Your task to perform on an android device: Open the phone app and click the voicemail tab. Image 0: 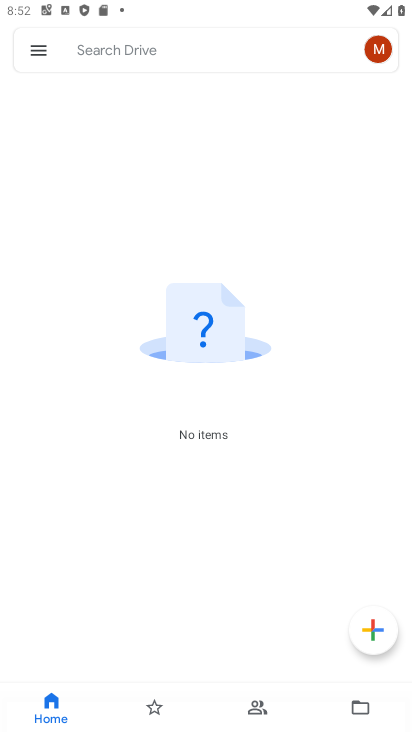
Step 0: press home button
Your task to perform on an android device: Open the phone app and click the voicemail tab. Image 1: 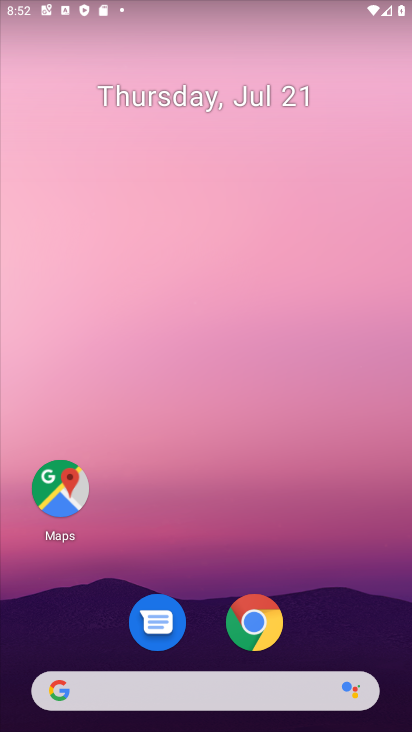
Step 1: drag from (221, 723) to (211, 119)
Your task to perform on an android device: Open the phone app and click the voicemail tab. Image 2: 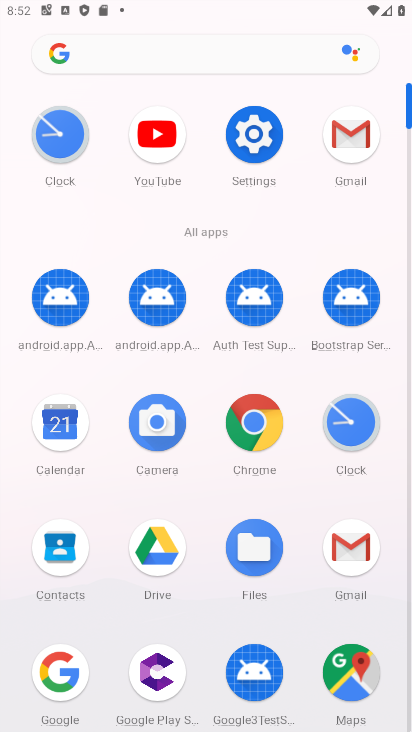
Step 2: drag from (202, 726) to (346, 19)
Your task to perform on an android device: Open the phone app and click the voicemail tab. Image 3: 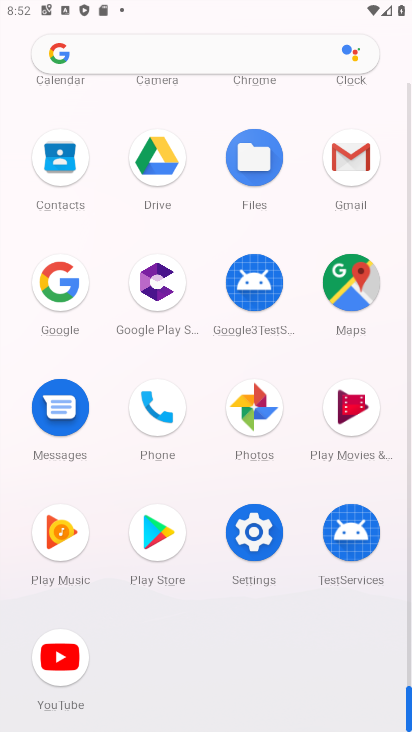
Step 3: click (151, 413)
Your task to perform on an android device: Open the phone app and click the voicemail tab. Image 4: 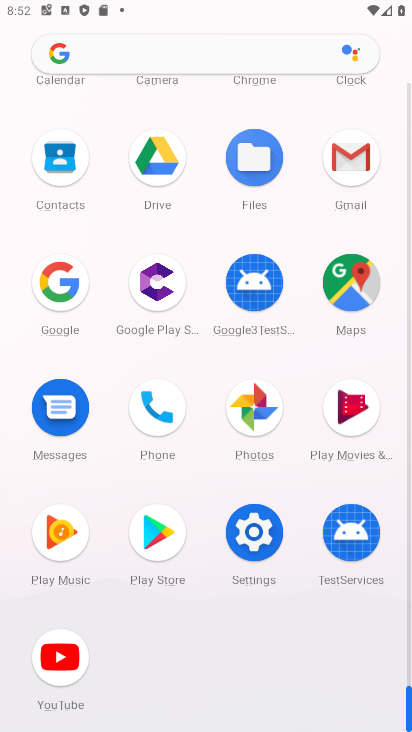
Step 4: click (151, 413)
Your task to perform on an android device: Open the phone app and click the voicemail tab. Image 5: 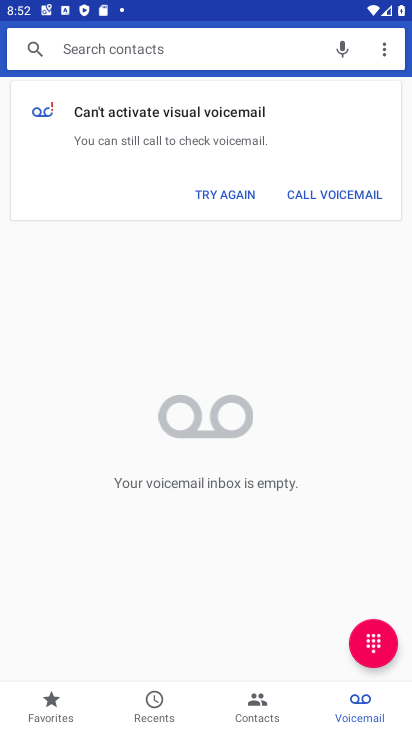
Step 5: click (367, 709)
Your task to perform on an android device: Open the phone app and click the voicemail tab. Image 6: 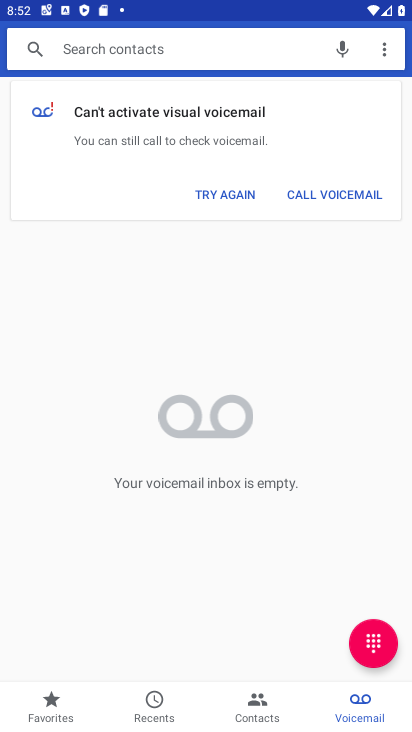
Step 6: click (367, 709)
Your task to perform on an android device: Open the phone app and click the voicemail tab. Image 7: 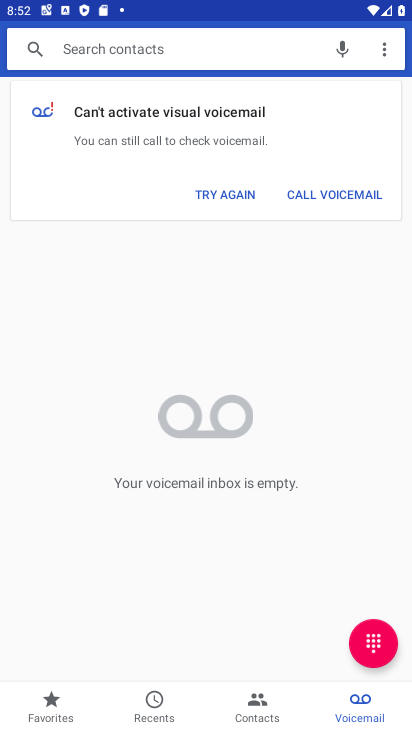
Step 7: task complete